Your task to perform on an android device: uninstall "Messenger Lite" Image 0: 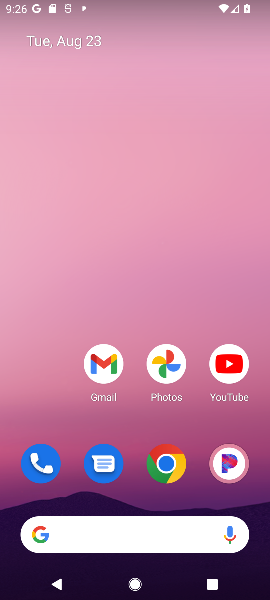
Step 0: drag from (131, 432) to (133, 63)
Your task to perform on an android device: uninstall "Messenger Lite" Image 1: 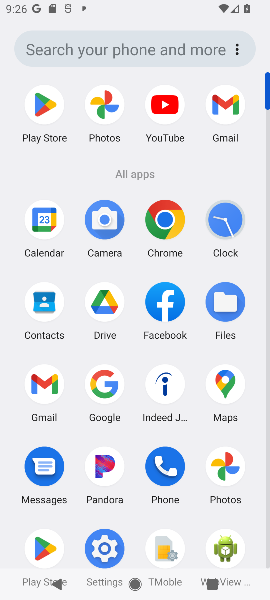
Step 1: click (43, 101)
Your task to perform on an android device: uninstall "Messenger Lite" Image 2: 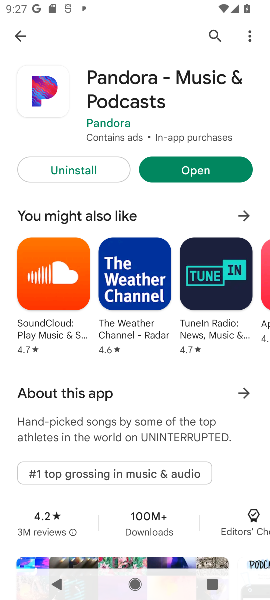
Step 2: click (209, 31)
Your task to perform on an android device: uninstall "Messenger Lite" Image 3: 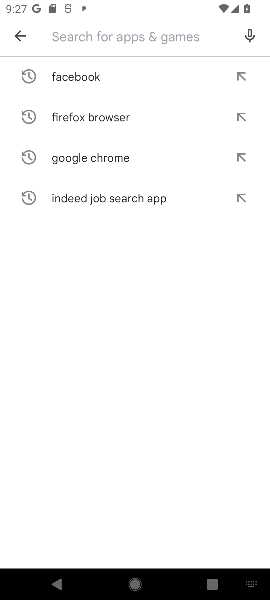
Step 3: type "Messenger Lite"
Your task to perform on an android device: uninstall "Messenger Lite" Image 4: 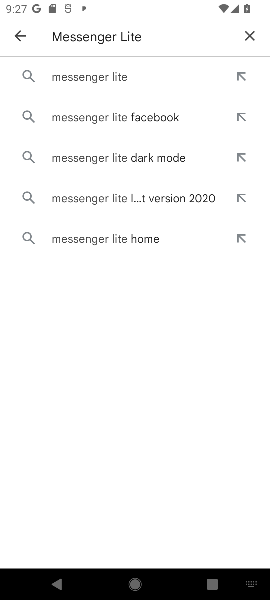
Step 4: click (119, 77)
Your task to perform on an android device: uninstall "Messenger Lite" Image 5: 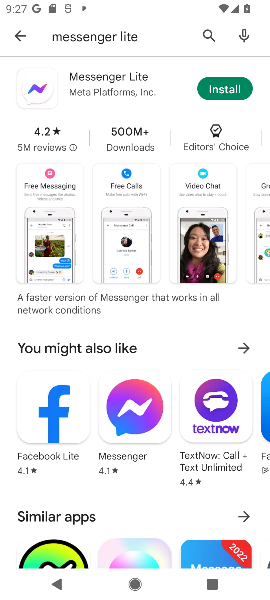
Step 5: task complete